Your task to perform on an android device: Open Youtube and go to "Your channel" Image 0: 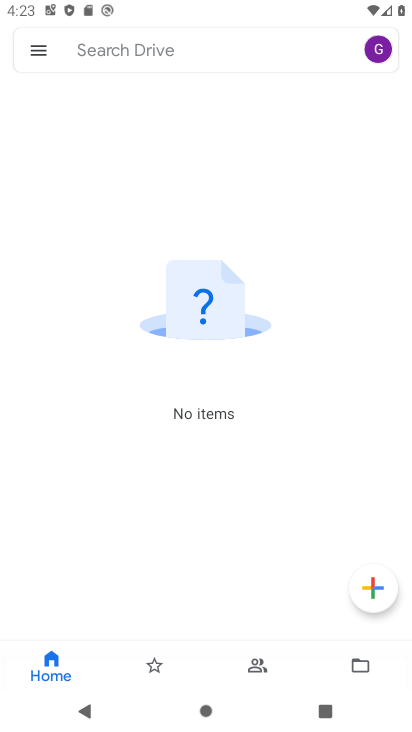
Step 0: press home button
Your task to perform on an android device: Open Youtube and go to "Your channel" Image 1: 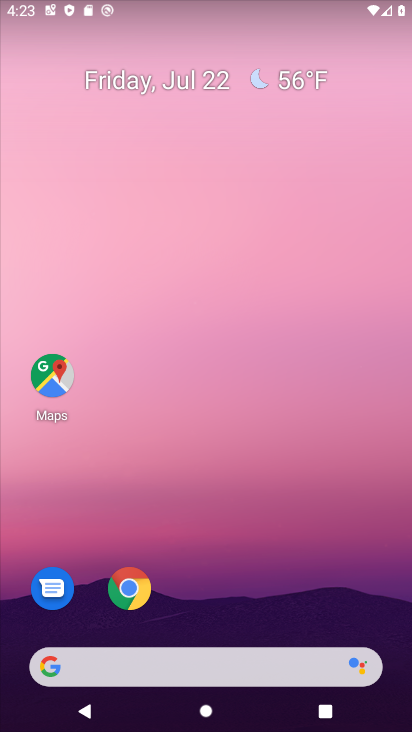
Step 1: drag from (219, 594) to (227, 278)
Your task to perform on an android device: Open Youtube and go to "Your channel" Image 2: 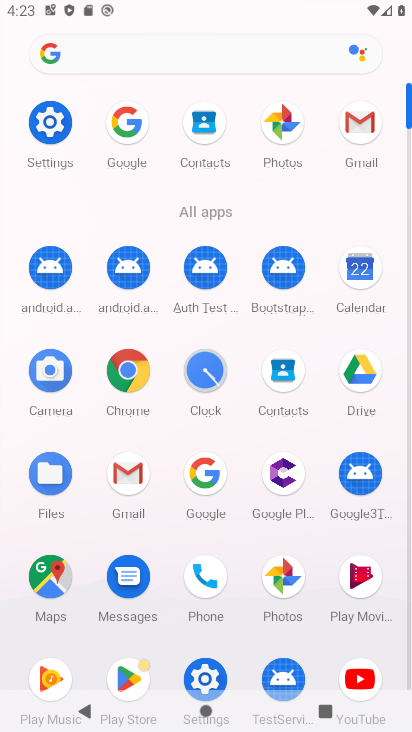
Step 2: click (355, 675)
Your task to perform on an android device: Open Youtube and go to "Your channel" Image 3: 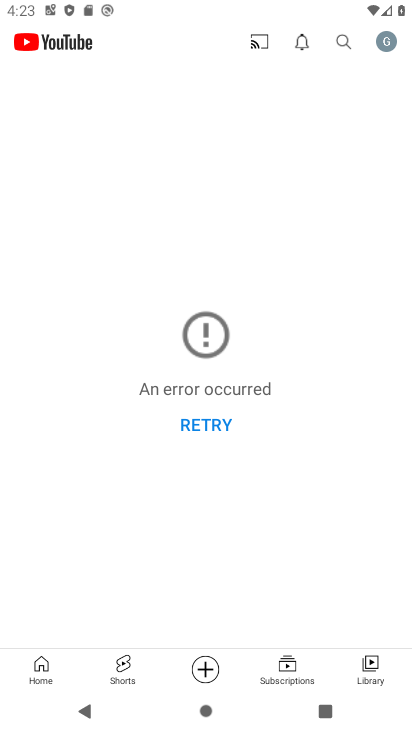
Step 3: click (391, 53)
Your task to perform on an android device: Open Youtube and go to "Your channel" Image 4: 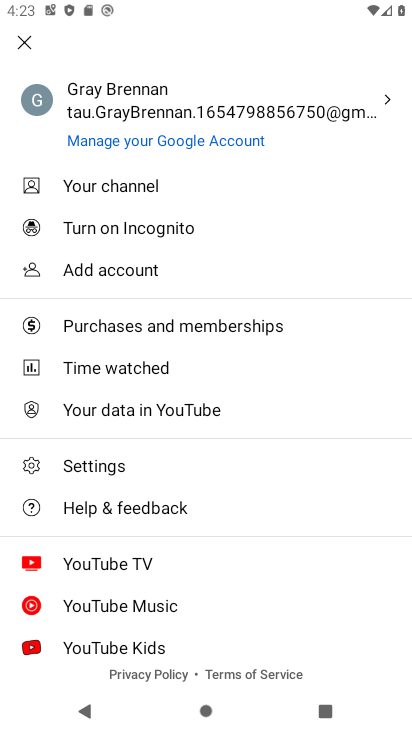
Step 4: click (205, 182)
Your task to perform on an android device: Open Youtube and go to "Your channel" Image 5: 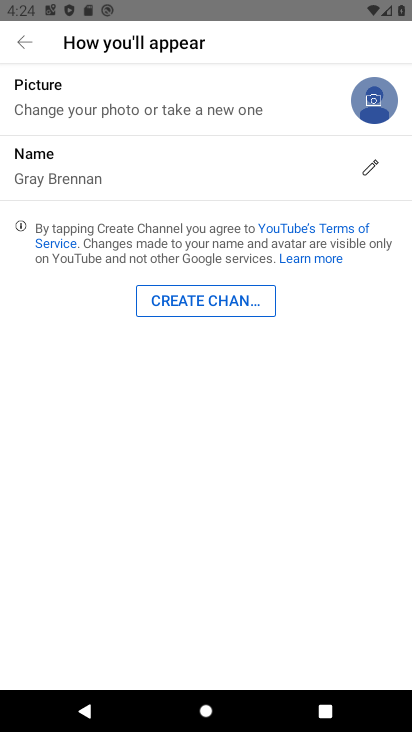
Step 5: click (24, 41)
Your task to perform on an android device: Open Youtube and go to "Your channel" Image 6: 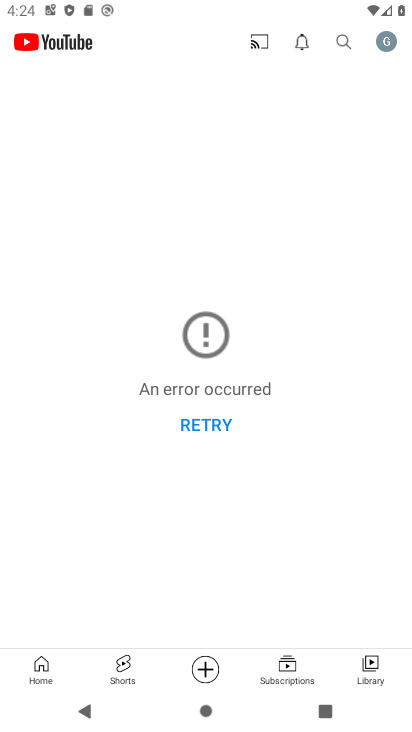
Step 6: task complete